Your task to perform on an android device: turn on bluetooth scan Image 0: 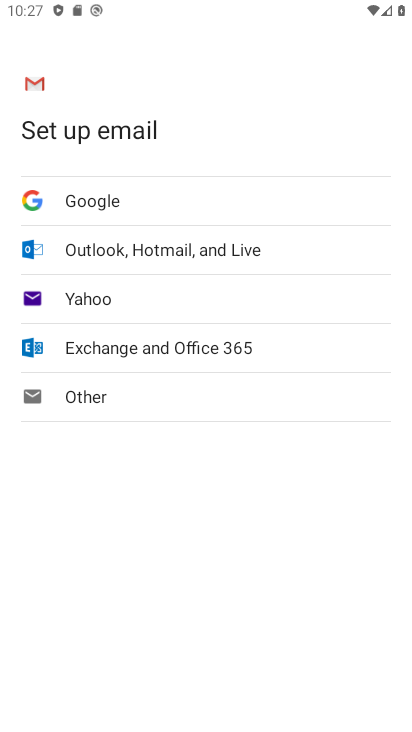
Step 0: press home button
Your task to perform on an android device: turn on bluetooth scan Image 1: 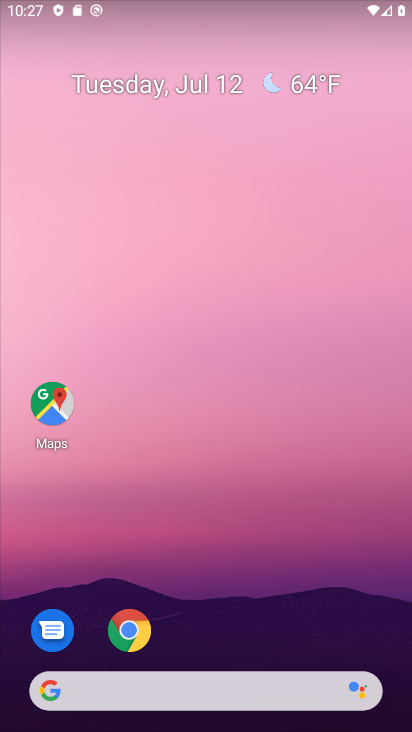
Step 1: drag from (327, 603) to (319, 60)
Your task to perform on an android device: turn on bluetooth scan Image 2: 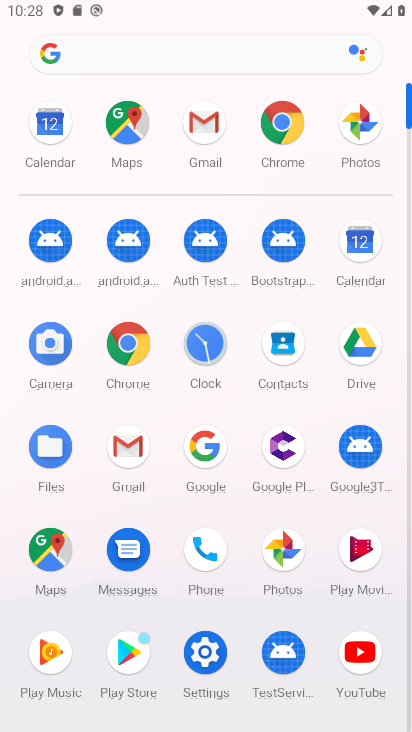
Step 2: click (201, 645)
Your task to perform on an android device: turn on bluetooth scan Image 3: 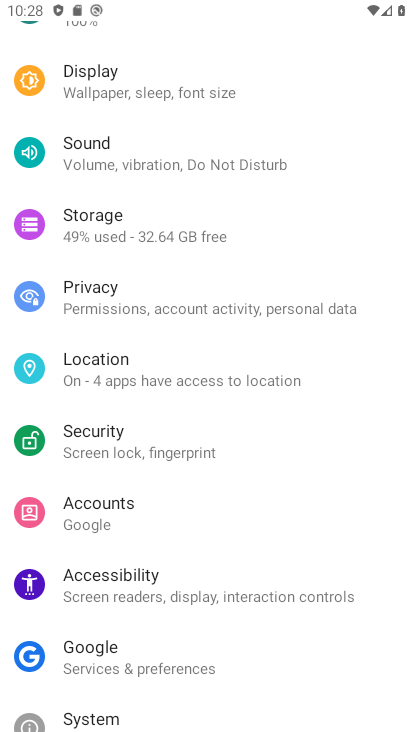
Step 3: drag from (343, 223) to (347, 340)
Your task to perform on an android device: turn on bluetooth scan Image 4: 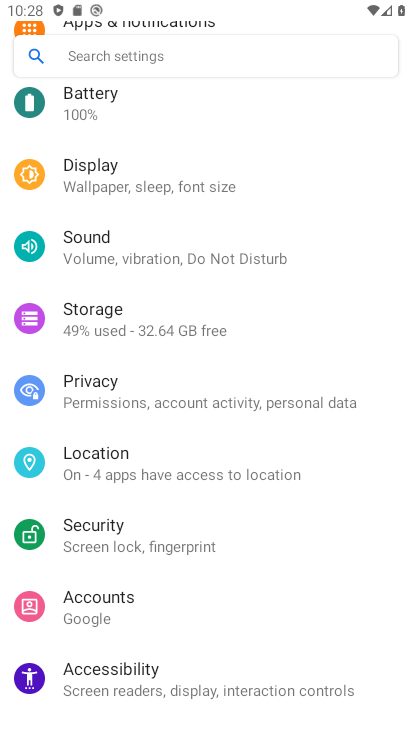
Step 4: drag from (347, 213) to (346, 320)
Your task to perform on an android device: turn on bluetooth scan Image 5: 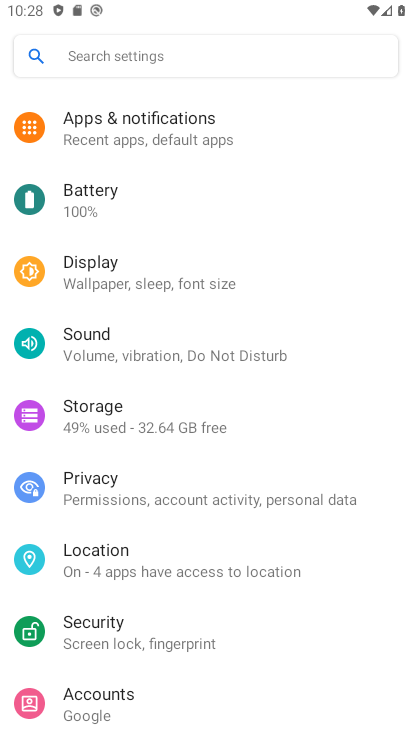
Step 5: drag from (346, 202) to (363, 328)
Your task to perform on an android device: turn on bluetooth scan Image 6: 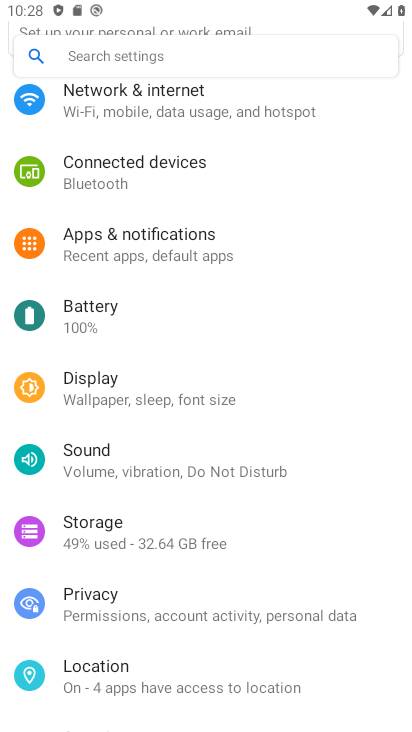
Step 6: drag from (365, 201) to (363, 328)
Your task to perform on an android device: turn on bluetooth scan Image 7: 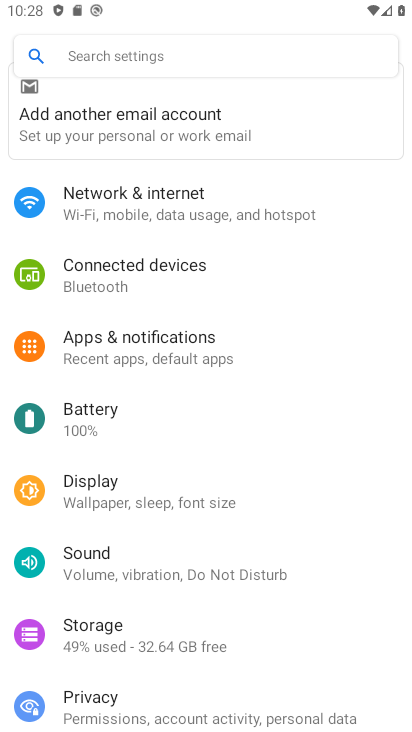
Step 7: click (351, 269)
Your task to perform on an android device: turn on bluetooth scan Image 8: 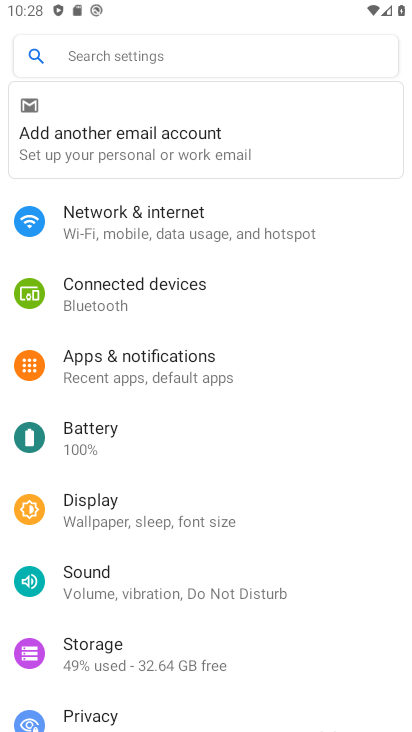
Step 8: drag from (349, 297) to (352, 441)
Your task to perform on an android device: turn on bluetooth scan Image 9: 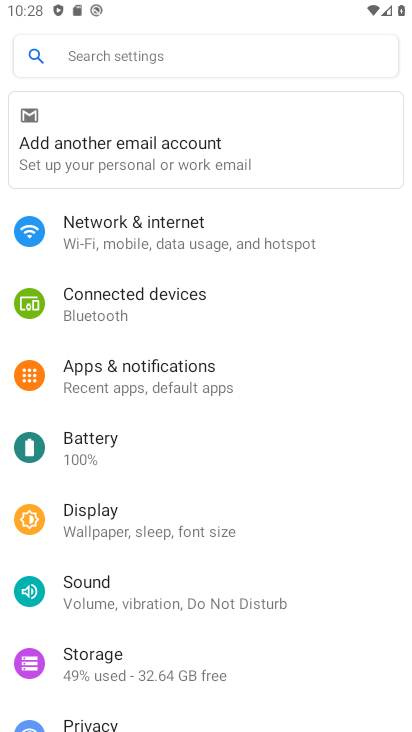
Step 9: drag from (329, 305) to (328, 454)
Your task to perform on an android device: turn on bluetooth scan Image 10: 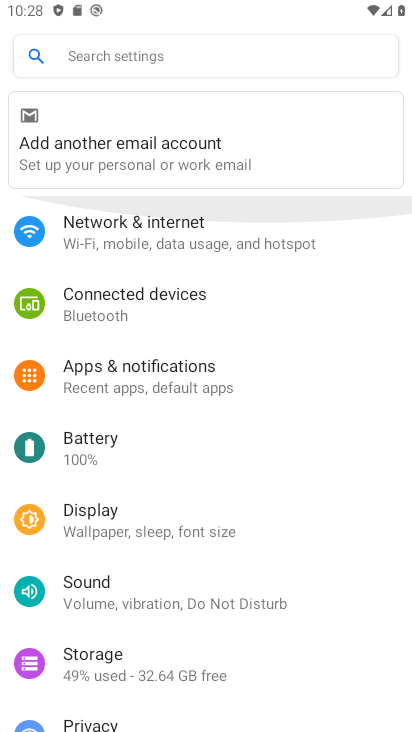
Step 10: drag from (342, 463) to (343, 321)
Your task to perform on an android device: turn on bluetooth scan Image 11: 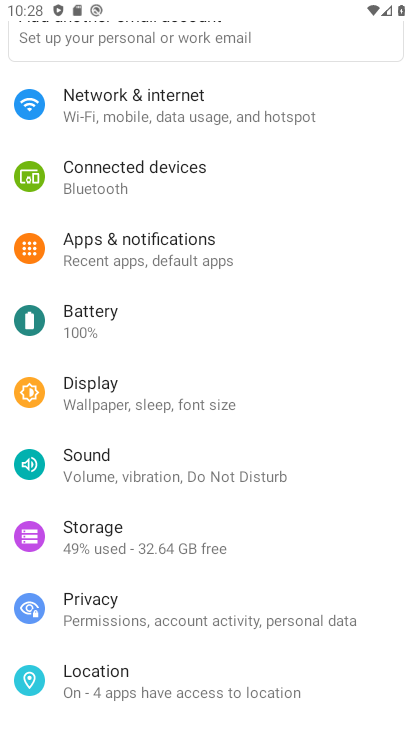
Step 11: drag from (350, 421) to (351, 323)
Your task to perform on an android device: turn on bluetooth scan Image 12: 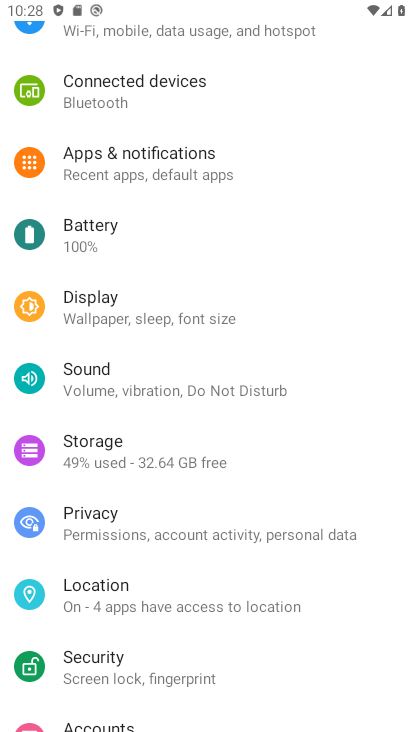
Step 12: drag from (356, 410) to (357, 328)
Your task to perform on an android device: turn on bluetooth scan Image 13: 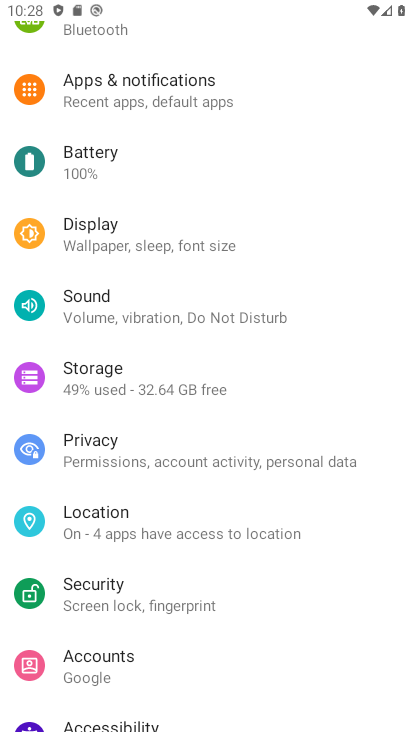
Step 13: drag from (363, 399) to (361, 316)
Your task to perform on an android device: turn on bluetooth scan Image 14: 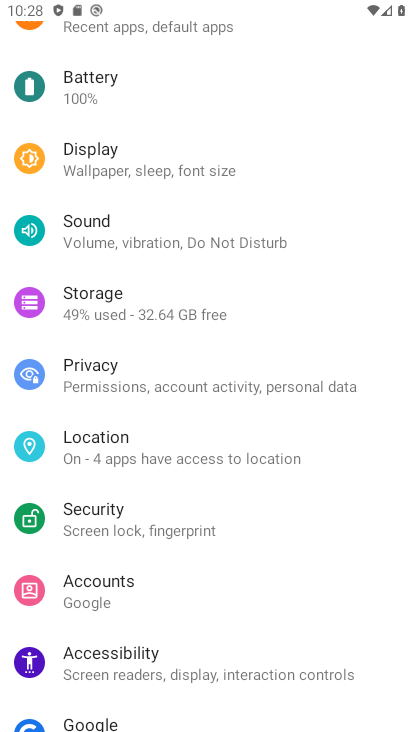
Step 14: drag from (370, 441) to (370, 340)
Your task to perform on an android device: turn on bluetooth scan Image 15: 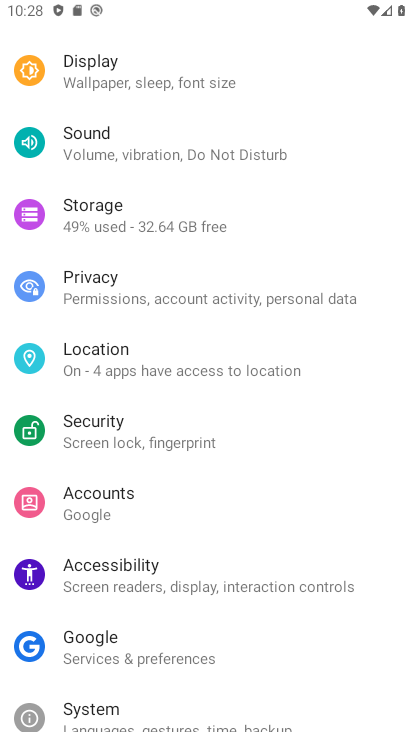
Step 15: drag from (353, 412) to (354, 339)
Your task to perform on an android device: turn on bluetooth scan Image 16: 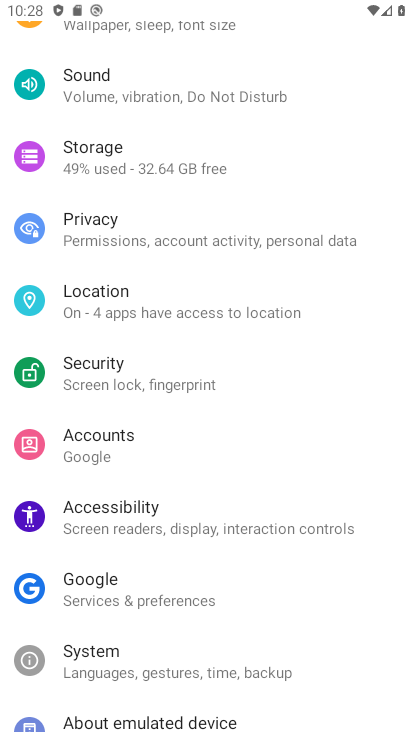
Step 16: click (250, 302)
Your task to perform on an android device: turn on bluetooth scan Image 17: 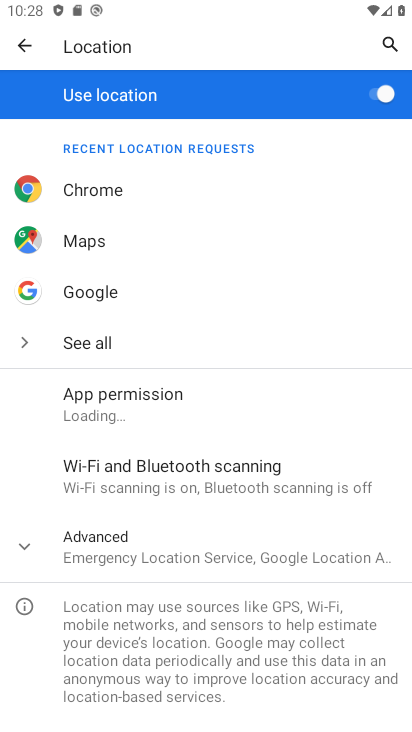
Step 17: drag from (340, 383) to (339, 307)
Your task to perform on an android device: turn on bluetooth scan Image 18: 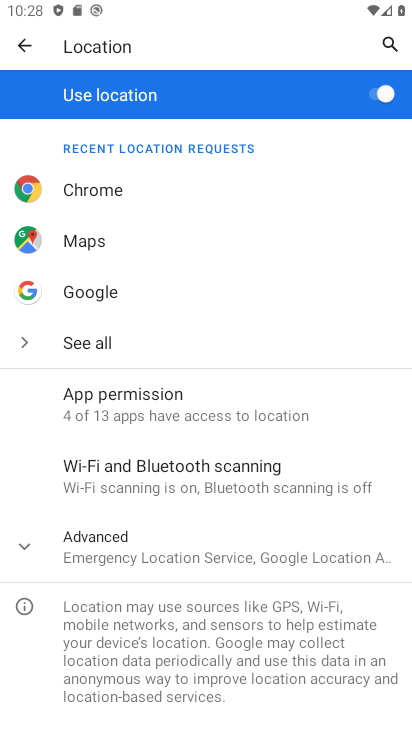
Step 18: click (316, 474)
Your task to perform on an android device: turn on bluetooth scan Image 19: 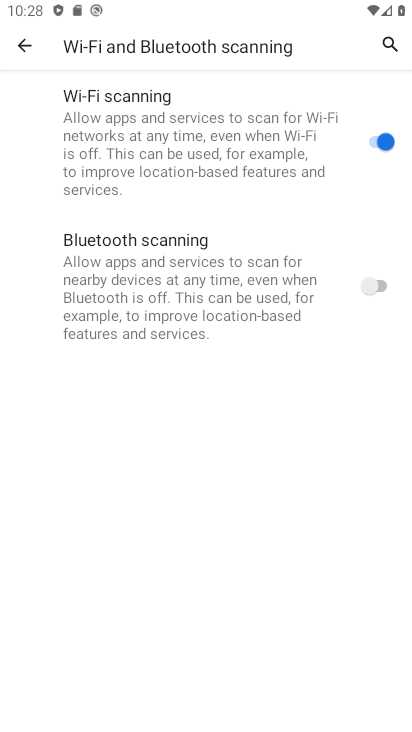
Step 19: click (367, 283)
Your task to perform on an android device: turn on bluetooth scan Image 20: 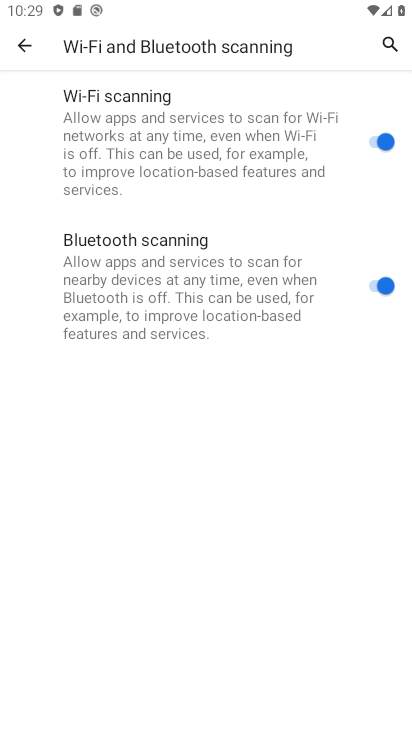
Step 20: task complete